Your task to perform on an android device: all mails in gmail Image 0: 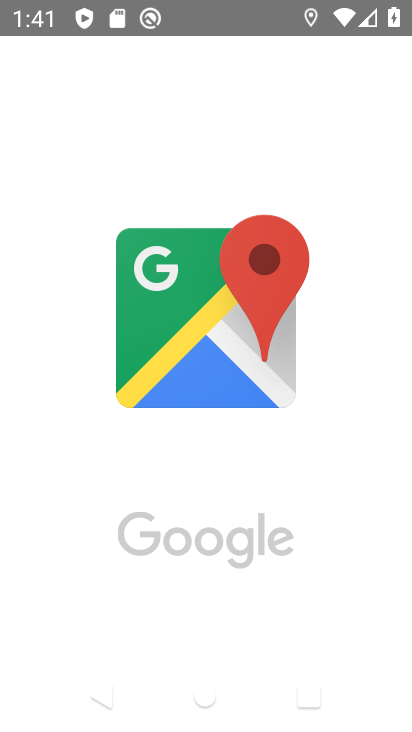
Step 0: press home button
Your task to perform on an android device: all mails in gmail Image 1: 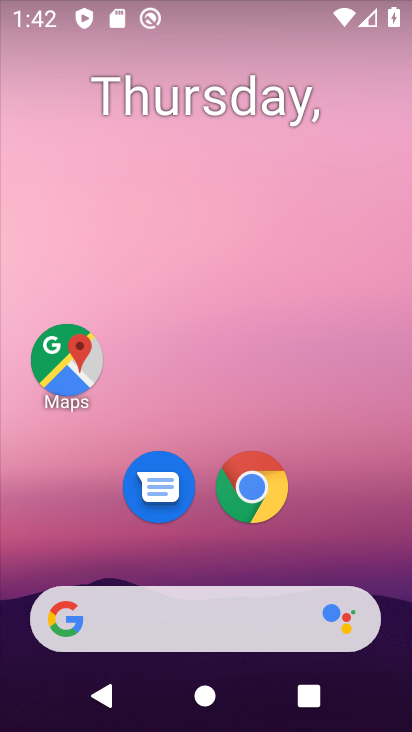
Step 1: drag from (295, 571) to (298, 51)
Your task to perform on an android device: all mails in gmail Image 2: 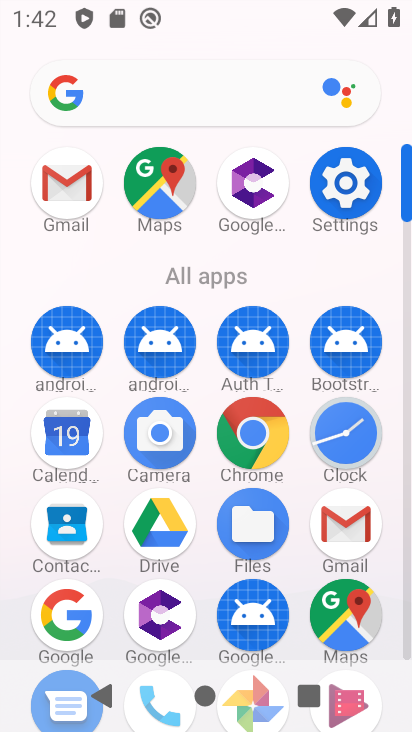
Step 2: click (340, 522)
Your task to perform on an android device: all mails in gmail Image 3: 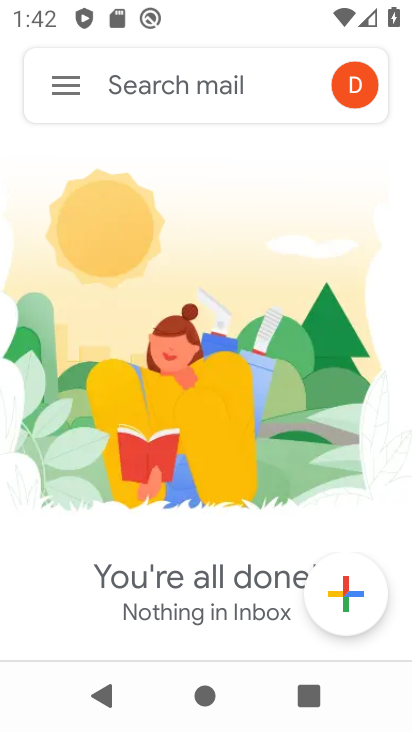
Step 3: click (62, 90)
Your task to perform on an android device: all mails in gmail Image 4: 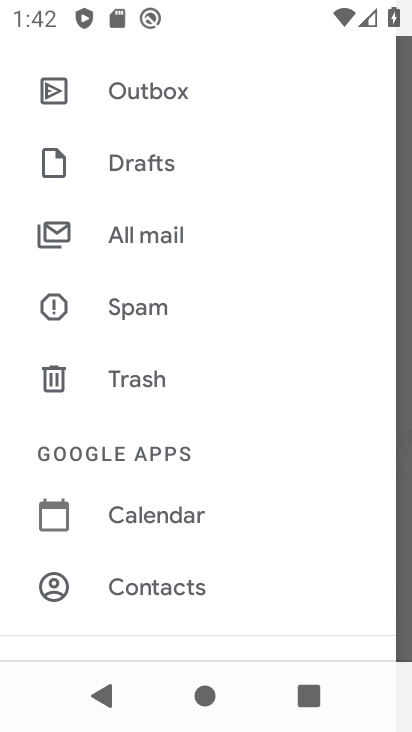
Step 4: click (170, 249)
Your task to perform on an android device: all mails in gmail Image 5: 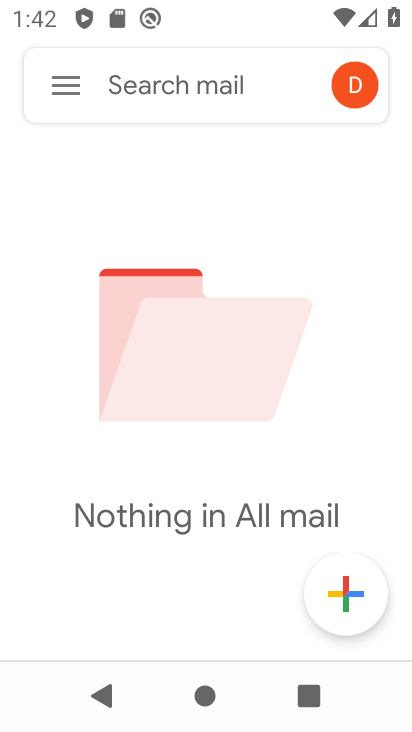
Step 5: task complete